Your task to perform on an android device: Open Amazon Image 0: 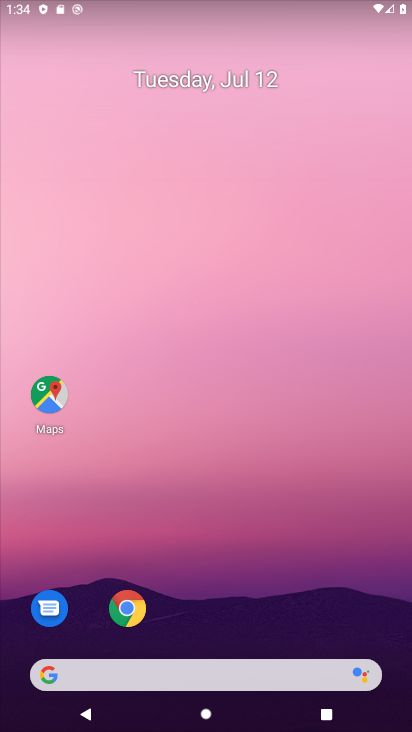
Step 0: drag from (239, 604) to (152, 104)
Your task to perform on an android device: Open Amazon Image 1: 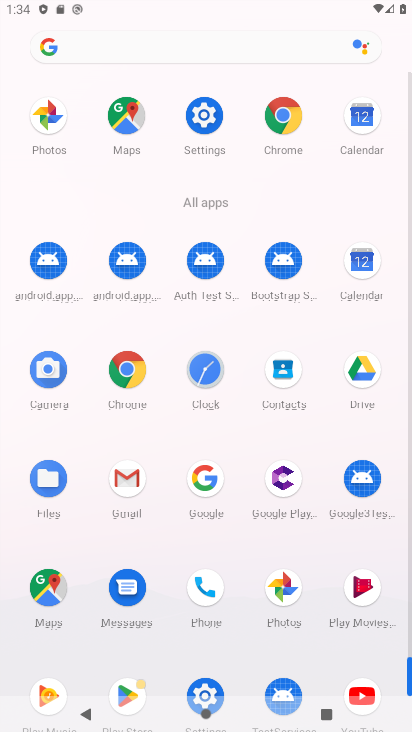
Step 1: click (291, 116)
Your task to perform on an android device: Open Amazon Image 2: 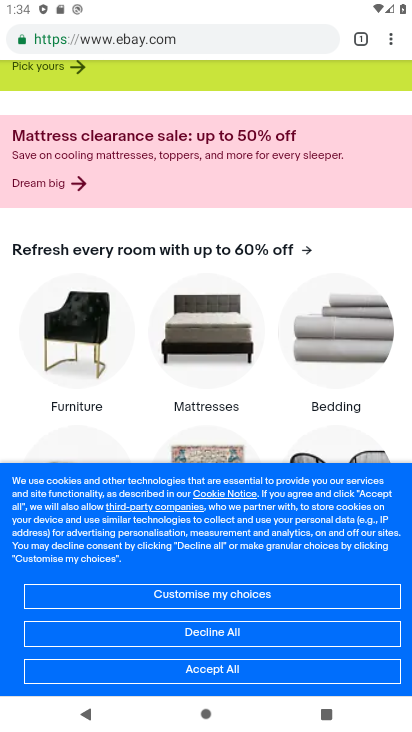
Step 2: drag from (207, 244) to (176, 407)
Your task to perform on an android device: Open Amazon Image 3: 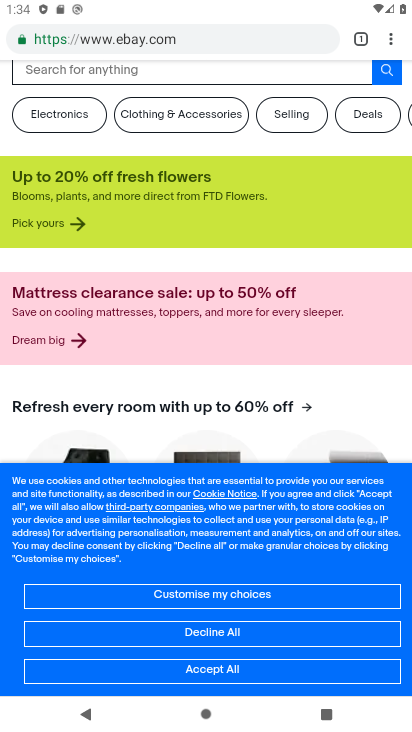
Step 3: click (358, 47)
Your task to perform on an android device: Open Amazon Image 4: 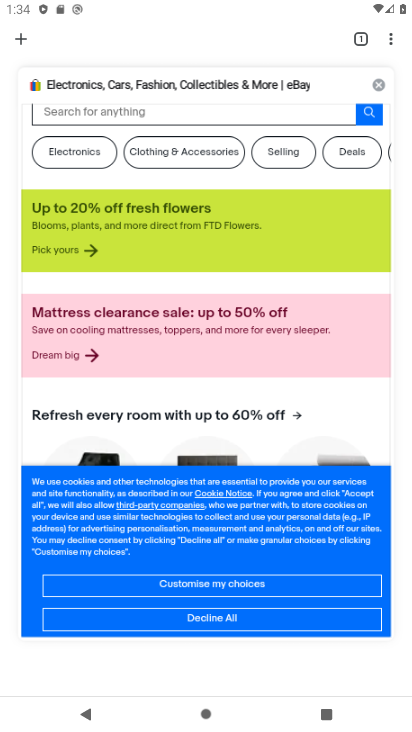
Step 4: click (381, 87)
Your task to perform on an android device: Open Amazon Image 5: 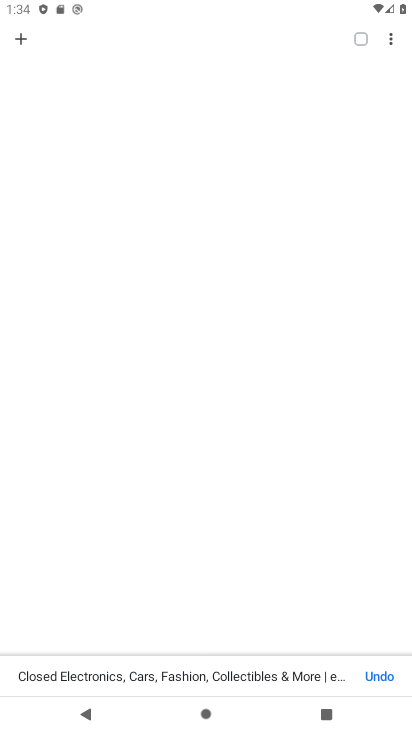
Step 5: click (25, 31)
Your task to perform on an android device: Open Amazon Image 6: 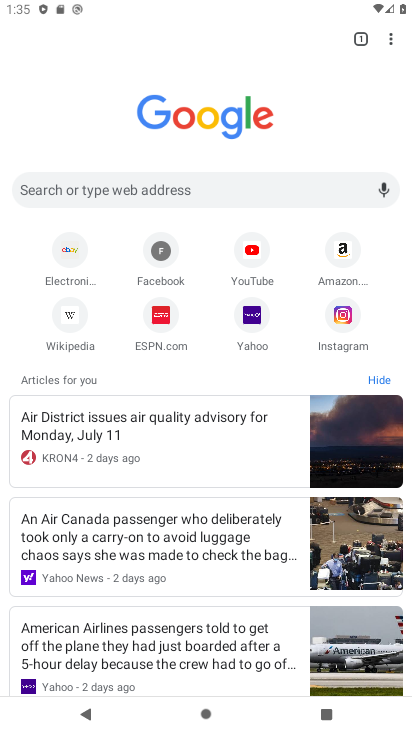
Step 6: click (339, 252)
Your task to perform on an android device: Open Amazon Image 7: 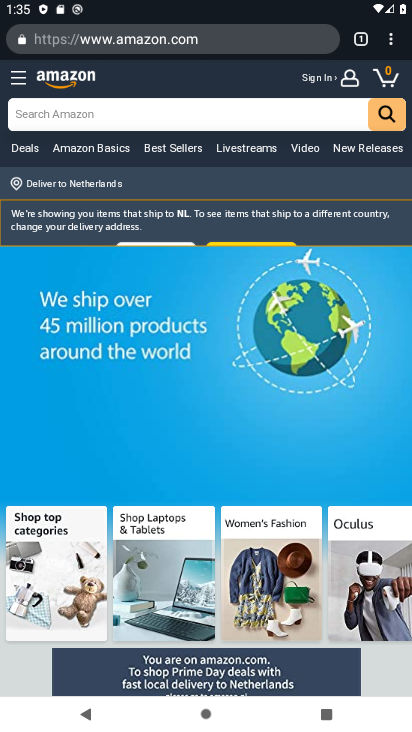
Step 7: task complete